Your task to perform on an android device: add a contact Image 0: 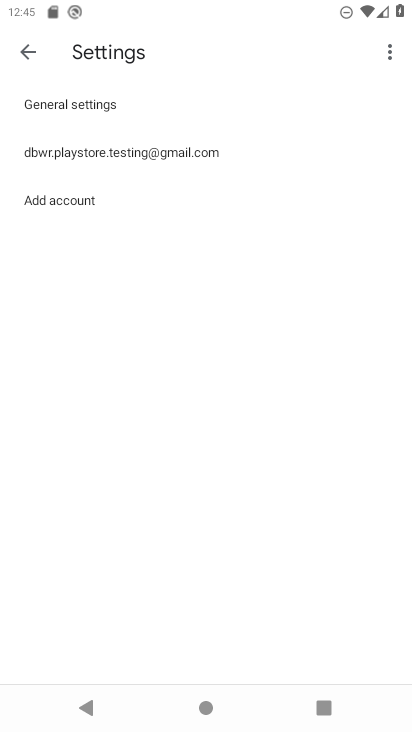
Step 0: press home button
Your task to perform on an android device: add a contact Image 1: 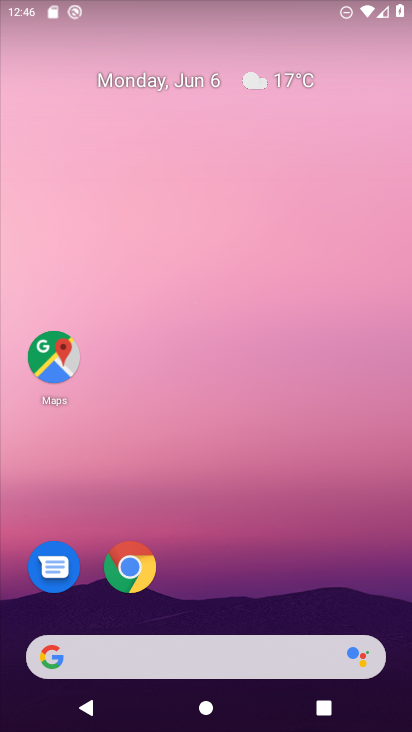
Step 1: drag from (235, 712) to (214, 42)
Your task to perform on an android device: add a contact Image 2: 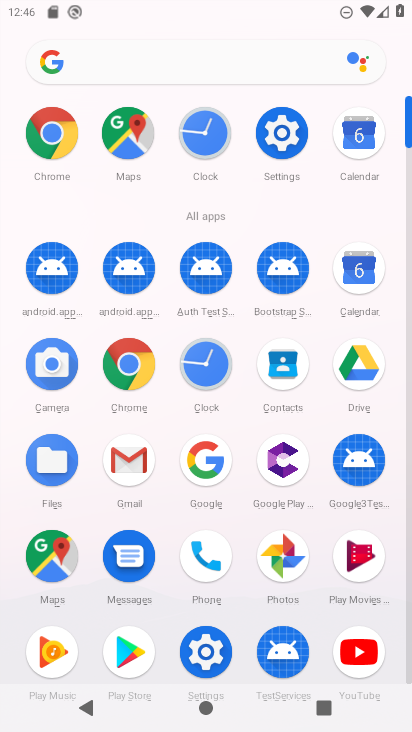
Step 2: click (281, 378)
Your task to perform on an android device: add a contact Image 3: 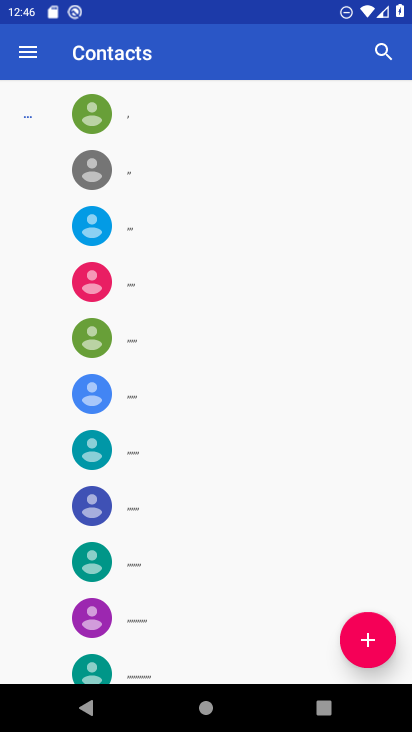
Step 3: click (368, 650)
Your task to perform on an android device: add a contact Image 4: 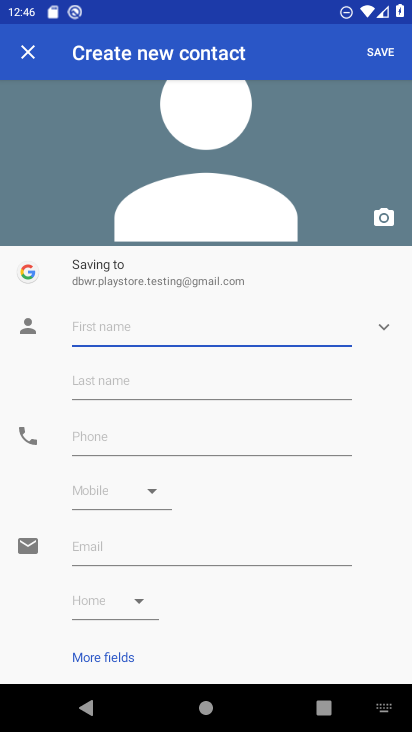
Step 4: type "arya bhatta"
Your task to perform on an android device: add a contact Image 5: 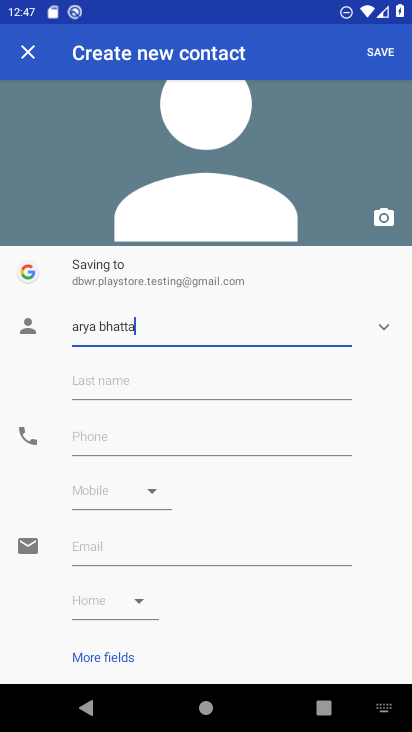
Step 5: click (103, 436)
Your task to perform on an android device: add a contact Image 6: 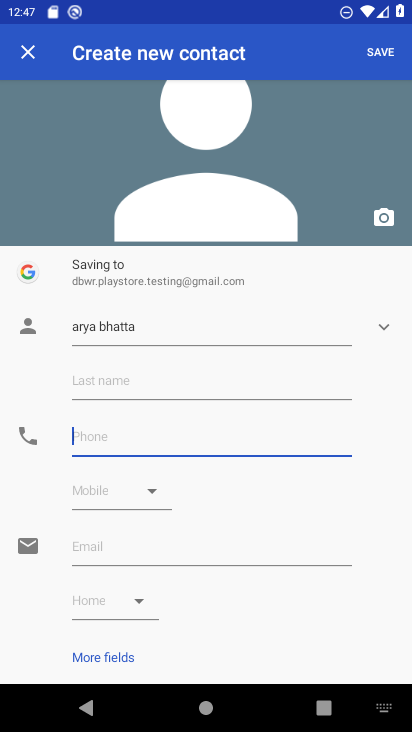
Step 6: type "999"
Your task to perform on an android device: add a contact Image 7: 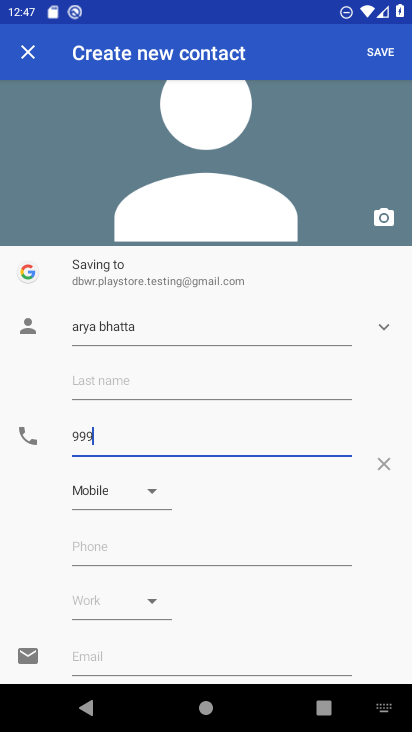
Step 7: click (385, 50)
Your task to perform on an android device: add a contact Image 8: 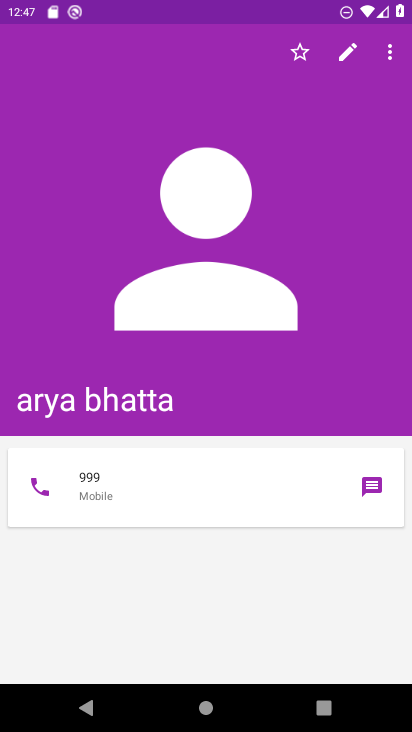
Step 8: task complete